Your task to perform on an android device: Open the web browser Image 0: 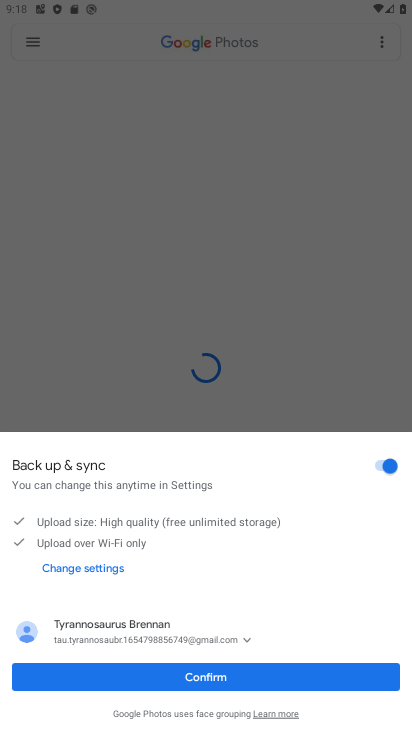
Step 0: press home button
Your task to perform on an android device: Open the web browser Image 1: 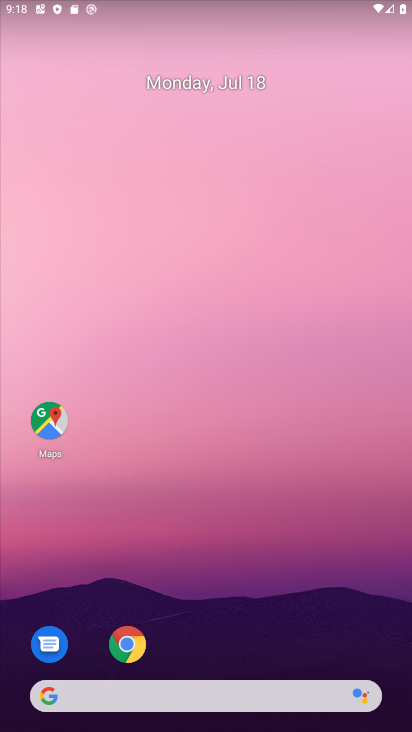
Step 1: click (171, 701)
Your task to perform on an android device: Open the web browser Image 2: 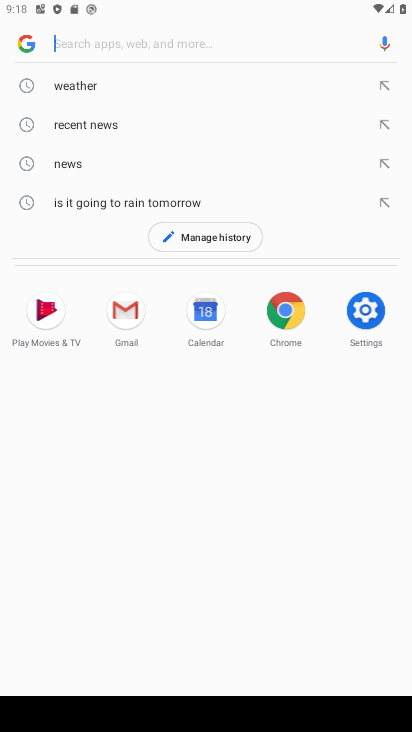
Step 2: task complete